Your task to perform on an android device: Turn off the flashlight Image 0: 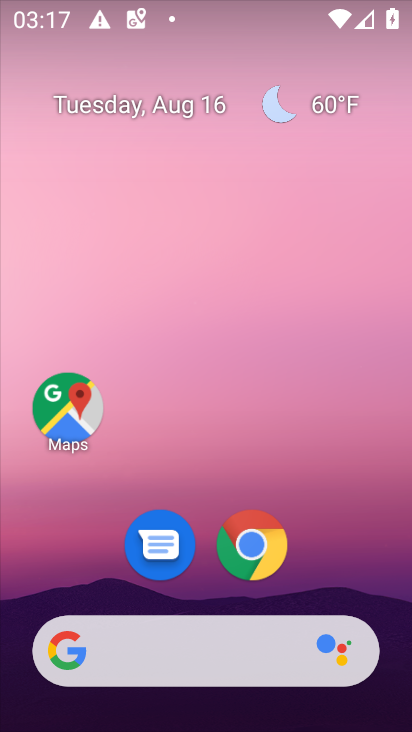
Step 0: drag from (165, 6) to (186, 547)
Your task to perform on an android device: Turn off the flashlight Image 1: 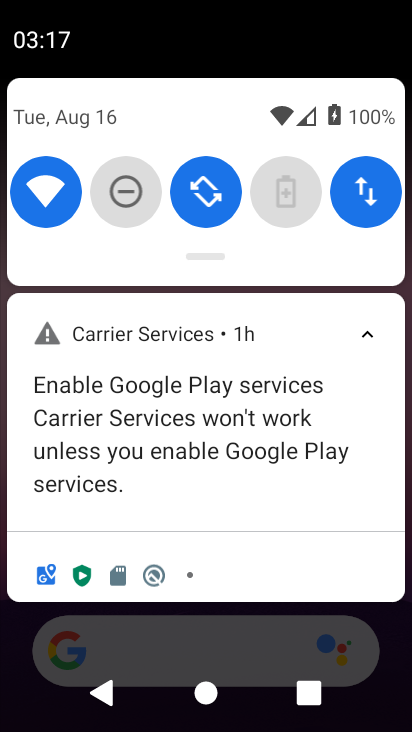
Step 1: drag from (140, 244) to (132, 640)
Your task to perform on an android device: Turn off the flashlight Image 2: 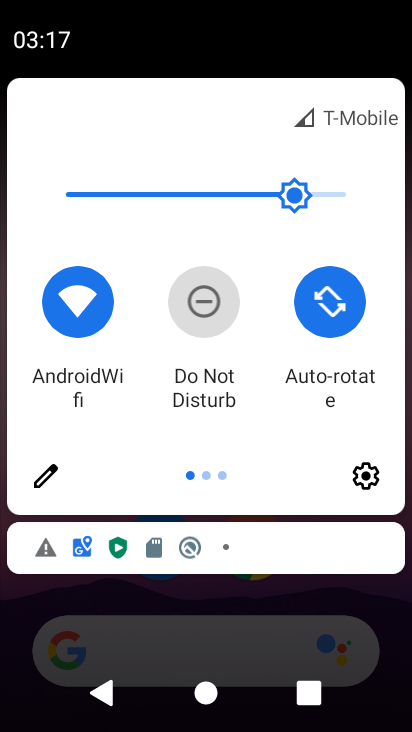
Step 2: drag from (296, 407) to (44, 451)
Your task to perform on an android device: Turn off the flashlight Image 3: 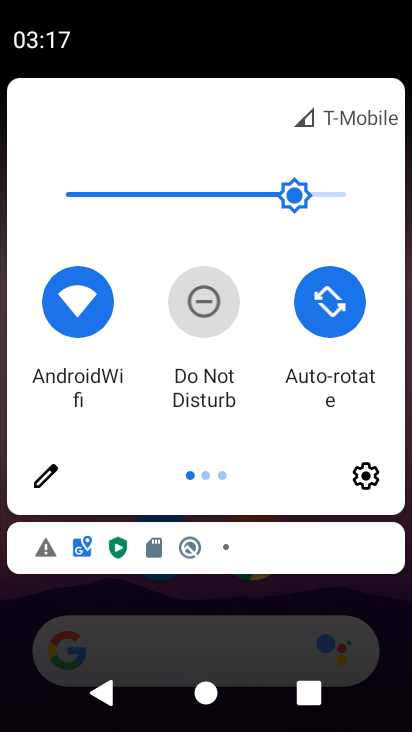
Step 3: drag from (303, 404) to (2, 475)
Your task to perform on an android device: Turn off the flashlight Image 4: 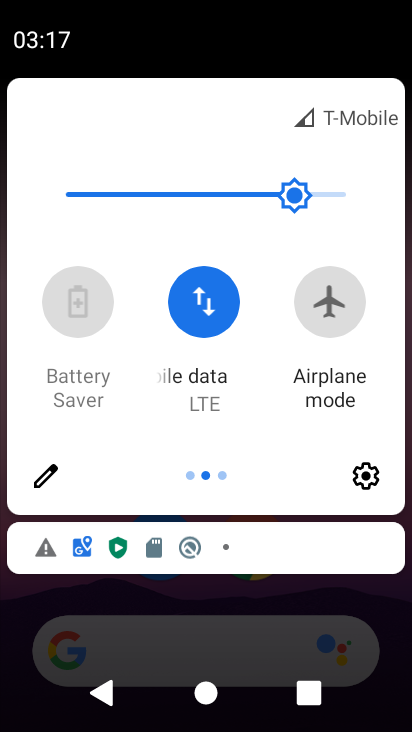
Step 4: click (42, 474)
Your task to perform on an android device: Turn off the flashlight Image 5: 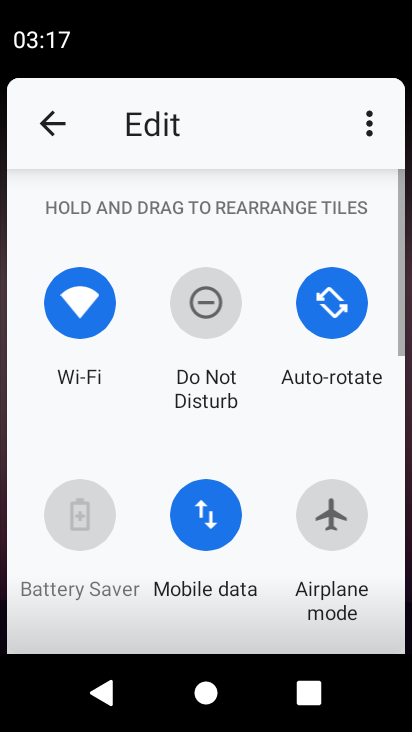
Step 5: task complete